Your task to perform on an android device: allow notifications from all sites in the chrome app Image 0: 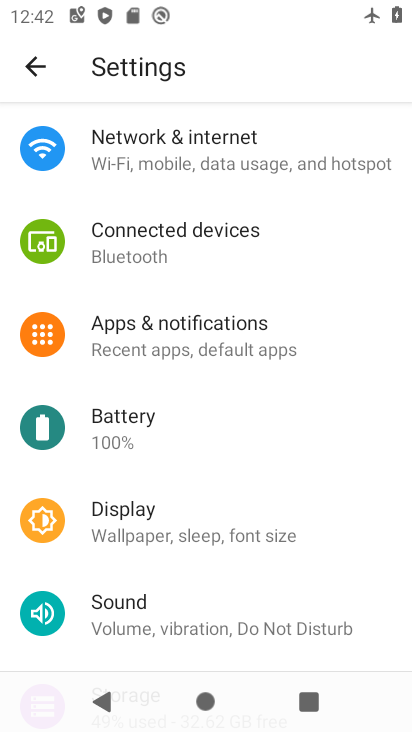
Step 0: press home button
Your task to perform on an android device: allow notifications from all sites in the chrome app Image 1: 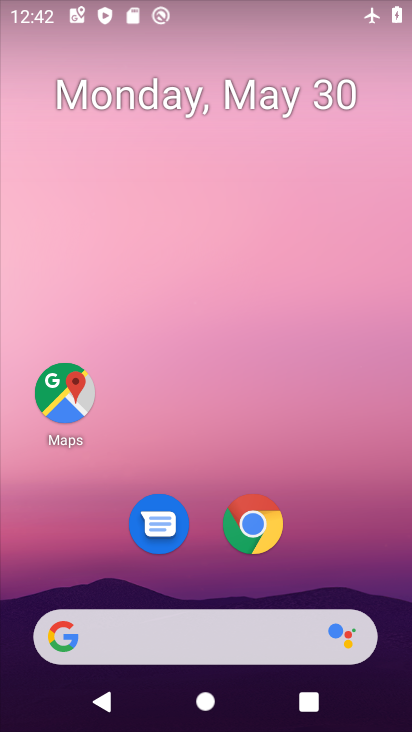
Step 1: click (253, 525)
Your task to perform on an android device: allow notifications from all sites in the chrome app Image 2: 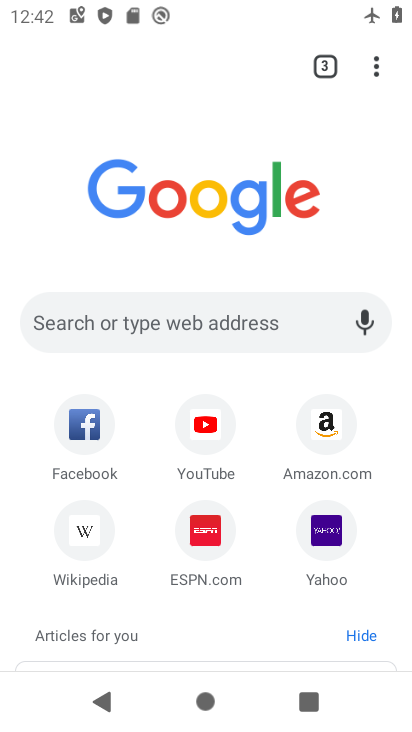
Step 2: click (375, 61)
Your task to perform on an android device: allow notifications from all sites in the chrome app Image 3: 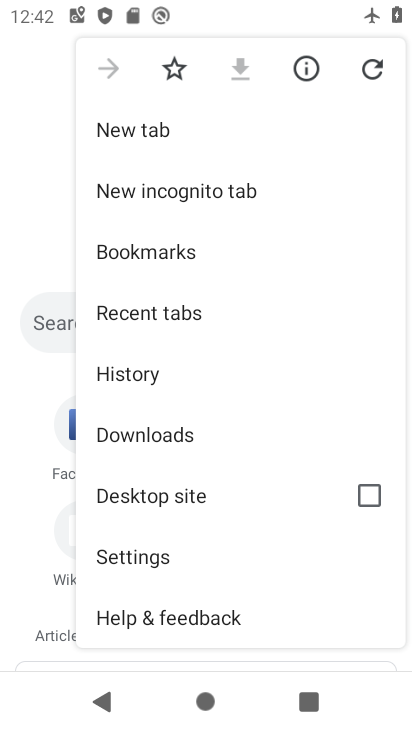
Step 3: click (179, 543)
Your task to perform on an android device: allow notifications from all sites in the chrome app Image 4: 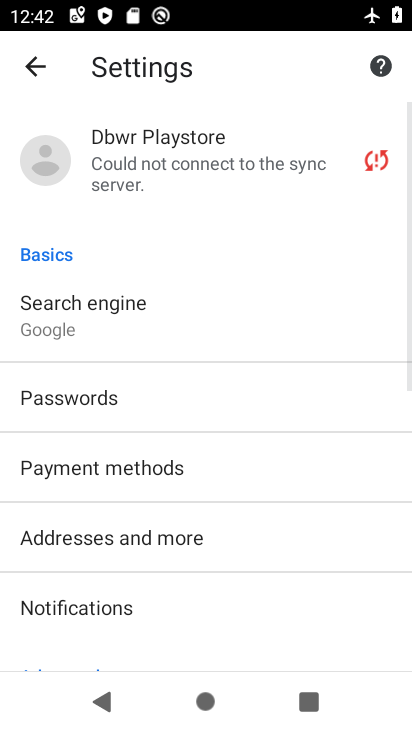
Step 4: drag from (213, 473) to (235, 340)
Your task to perform on an android device: allow notifications from all sites in the chrome app Image 5: 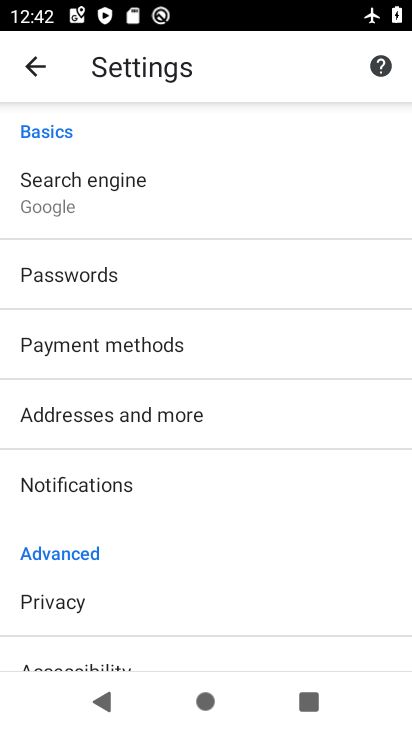
Step 5: click (230, 455)
Your task to perform on an android device: allow notifications from all sites in the chrome app Image 6: 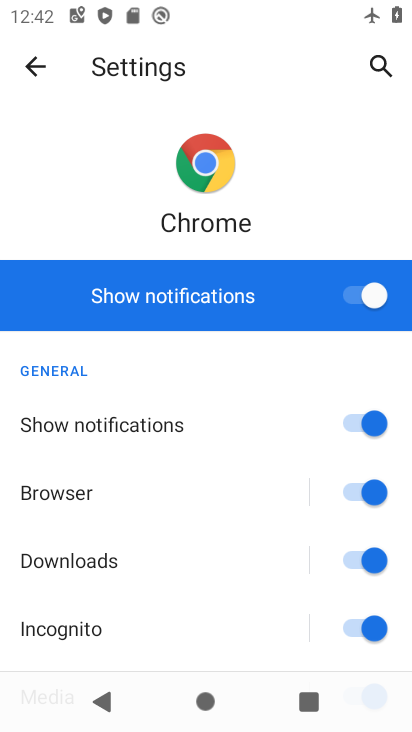
Step 6: task complete